Your task to perform on an android device: delete location history Image 0: 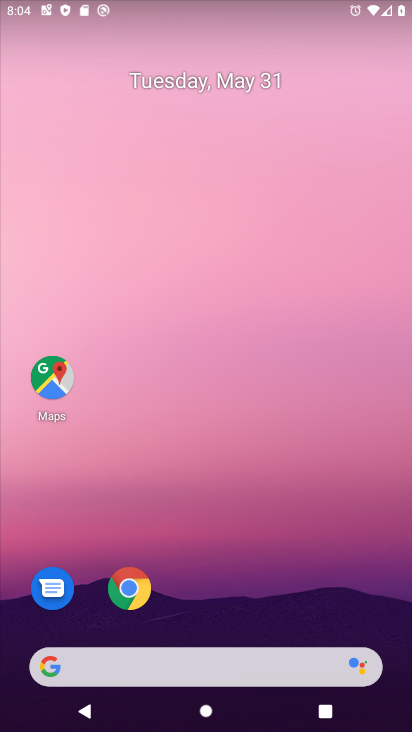
Step 0: click (212, 610)
Your task to perform on an android device: delete location history Image 1: 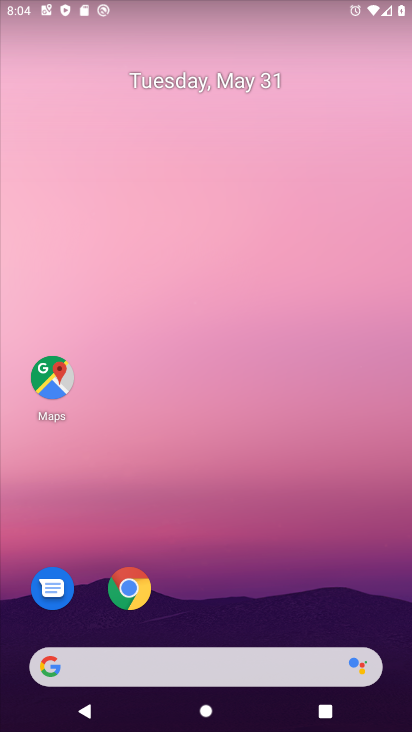
Step 1: click (63, 399)
Your task to perform on an android device: delete location history Image 2: 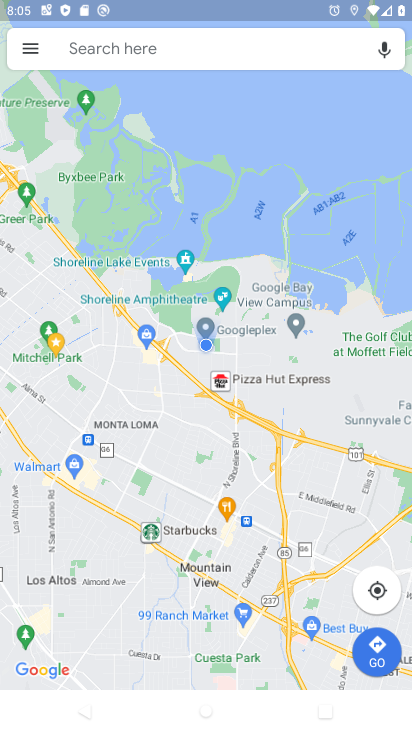
Step 2: click (38, 58)
Your task to perform on an android device: delete location history Image 3: 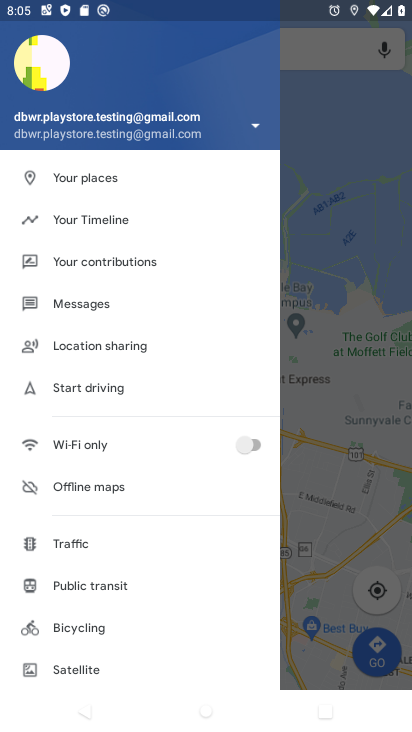
Step 3: click (93, 615)
Your task to perform on an android device: delete location history Image 4: 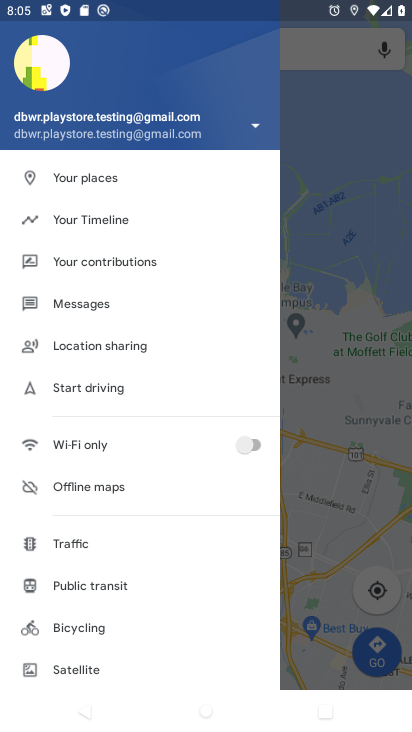
Step 4: click (118, 229)
Your task to perform on an android device: delete location history Image 5: 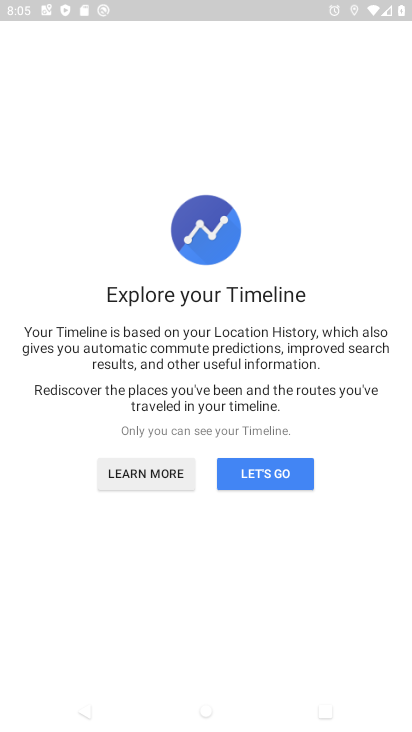
Step 5: click (287, 466)
Your task to perform on an android device: delete location history Image 6: 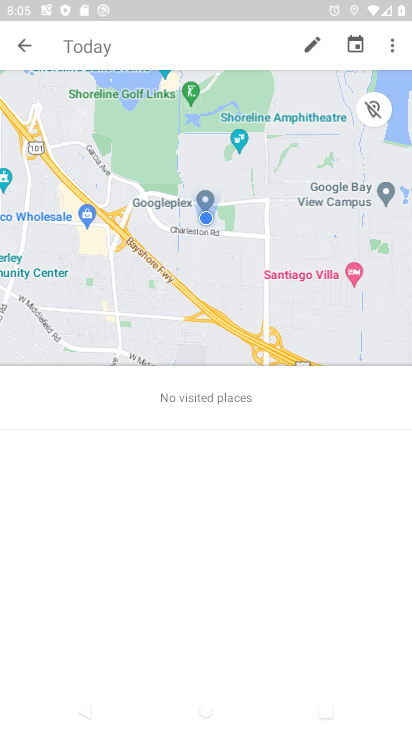
Step 6: click (386, 54)
Your task to perform on an android device: delete location history Image 7: 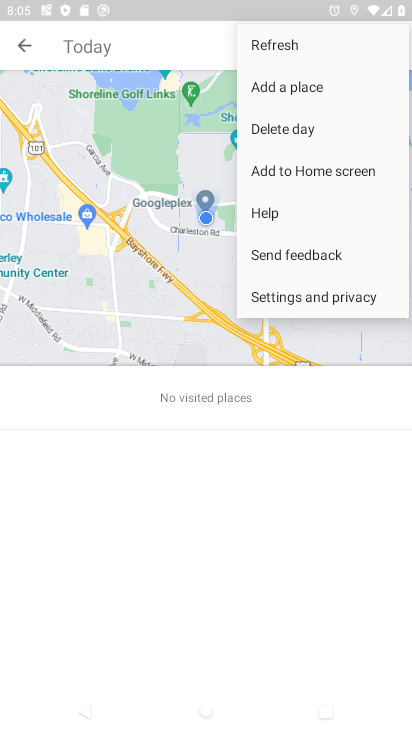
Step 7: click (295, 295)
Your task to perform on an android device: delete location history Image 8: 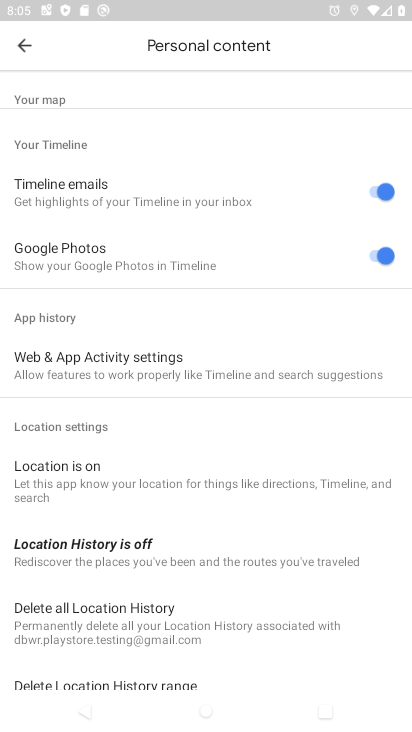
Step 8: click (117, 619)
Your task to perform on an android device: delete location history Image 9: 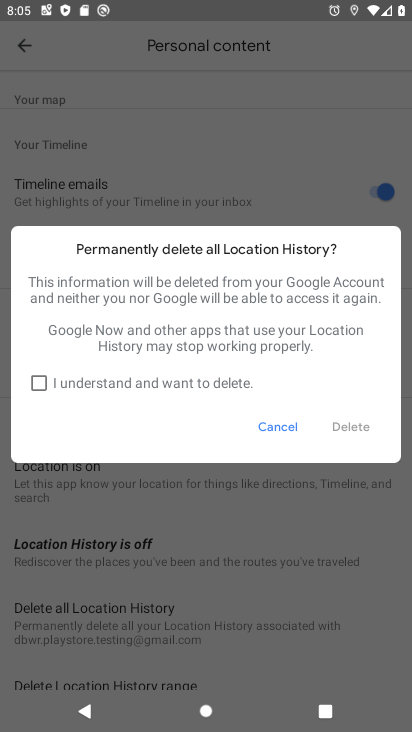
Step 9: click (83, 382)
Your task to perform on an android device: delete location history Image 10: 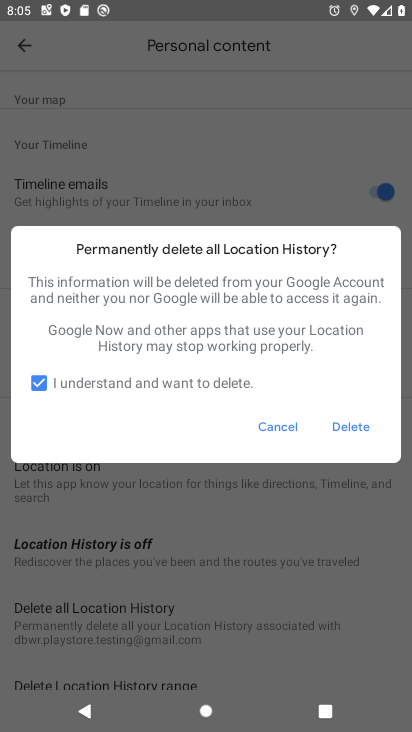
Step 10: click (365, 426)
Your task to perform on an android device: delete location history Image 11: 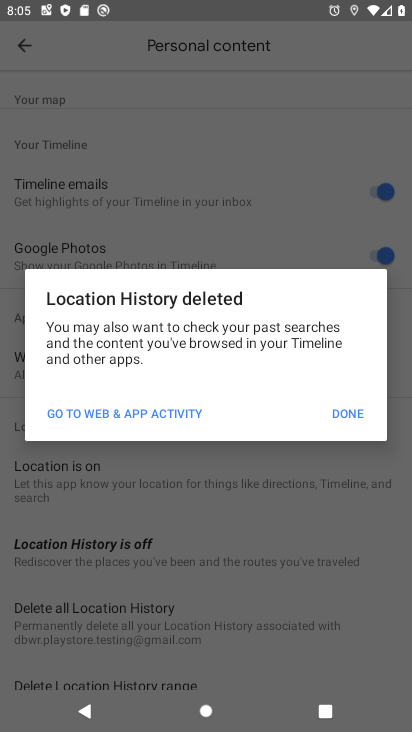
Step 11: click (344, 406)
Your task to perform on an android device: delete location history Image 12: 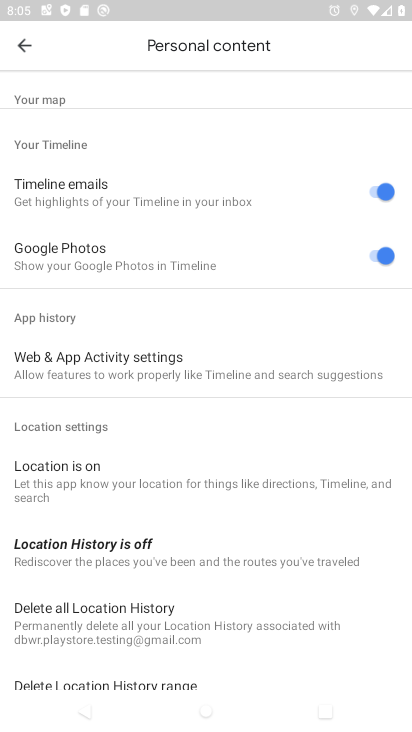
Step 12: task complete